Your task to perform on an android device: Search for seafood restaurants on Google Maps Image 0: 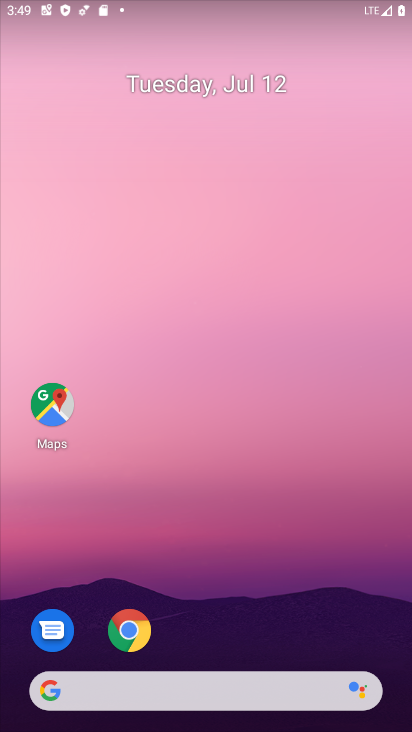
Step 0: drag from (274, 557) to (363, 3)
Your task to perform on an android device: Search for seafood restaurants on Google Maps Image 1: 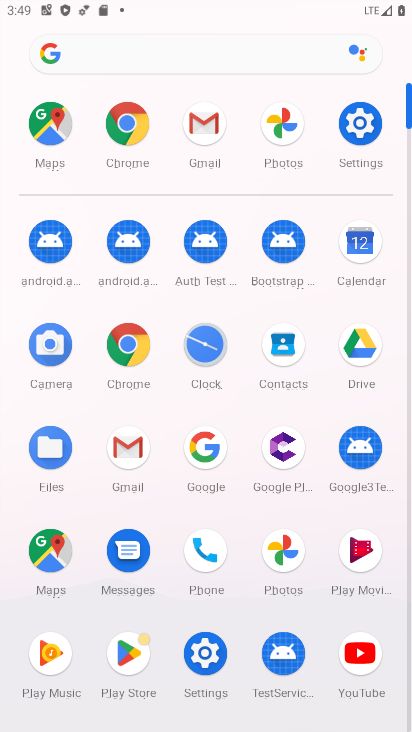
Step 1: click (50, 551)
Your task to perform on an android device: Search for seafood restaurants on Google Maps Image 2: 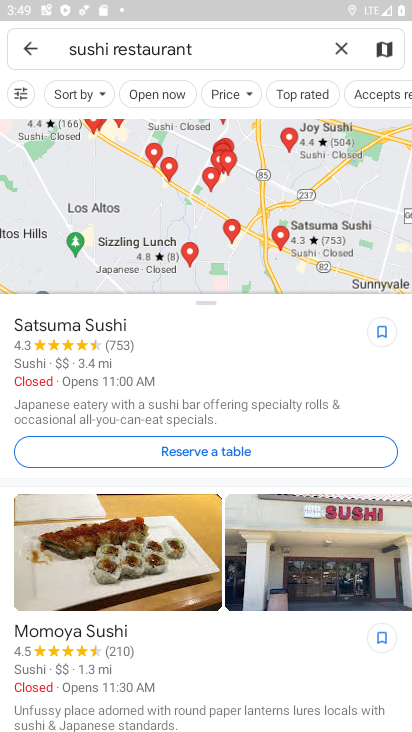
Step 2: click (338, 49)
Your task to perform on an android device: Search for seafood restaurants on Google Maps Image 3: 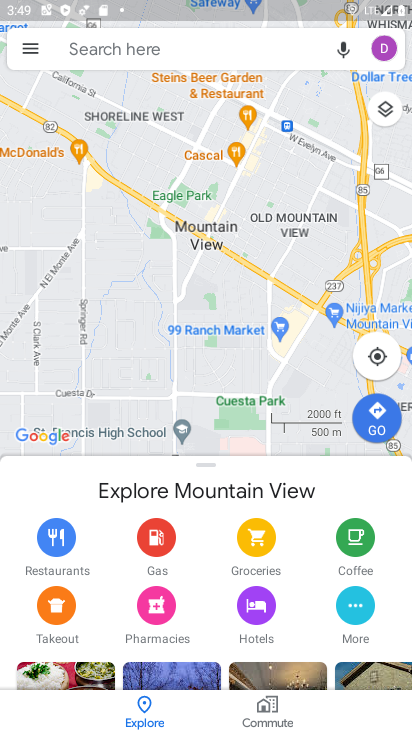
Step 3: click (183, 43)
Your task to perform on an android device: Search for seafood restaurants on Google Maps Image 4: 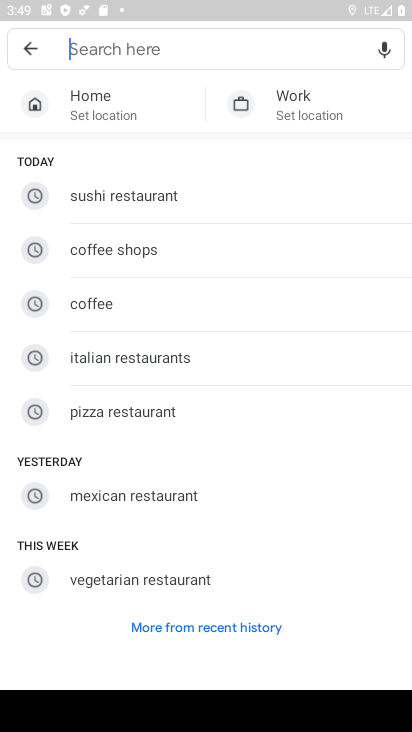
Step 4: type "seafood restaurant"
Your task to perform on an android device: Search for seafood restaurants on Google Maps Image 5: 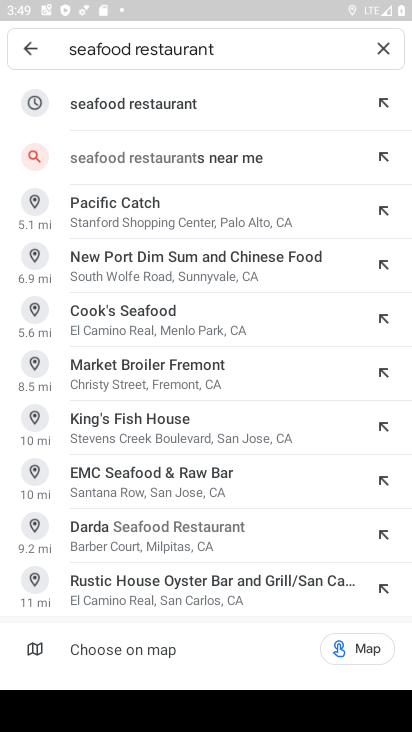
Step 5: click (217, 105)
Your task to perform on an android device: Search for seafood restaurants on Google Maps Image 6: 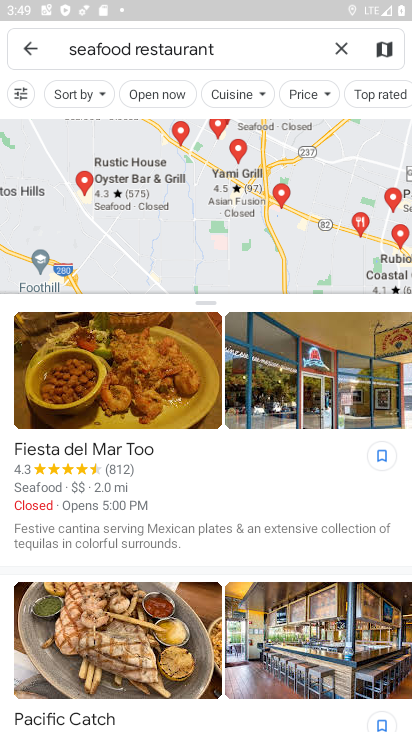
Step 6: task complete